Your task to perform on an android device: turn notification dots on Image 0: 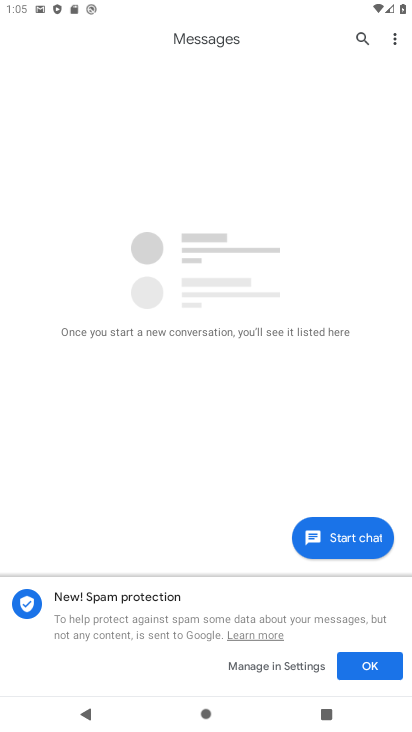
Step 0: press back button
Your task to perform on an android device: turn notification dots on Image 1: 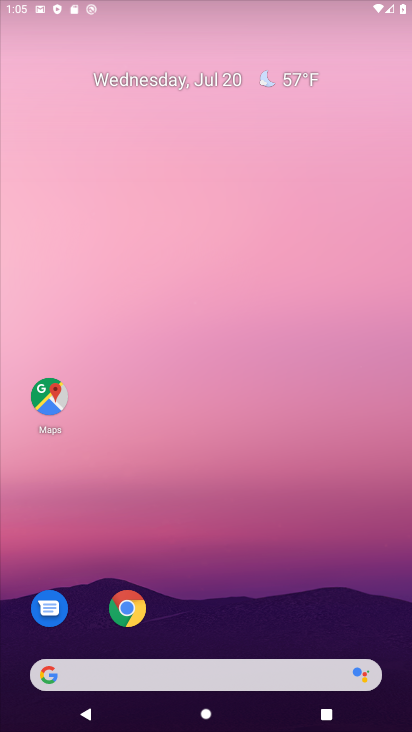
Step 1: drag from (158, 624) to (248, 69)
Your task to perform on an android device: turn notification dots on Image 2: 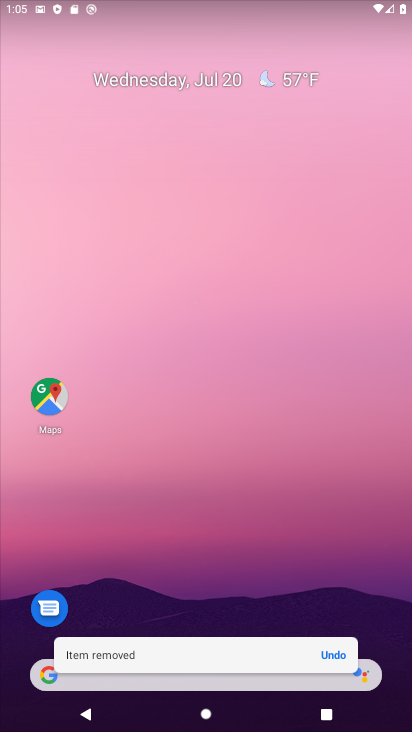
Step 2: drag from (198, 592) to (280, 86)
Your task to perform on an android device: turn notification dots on Image 3: 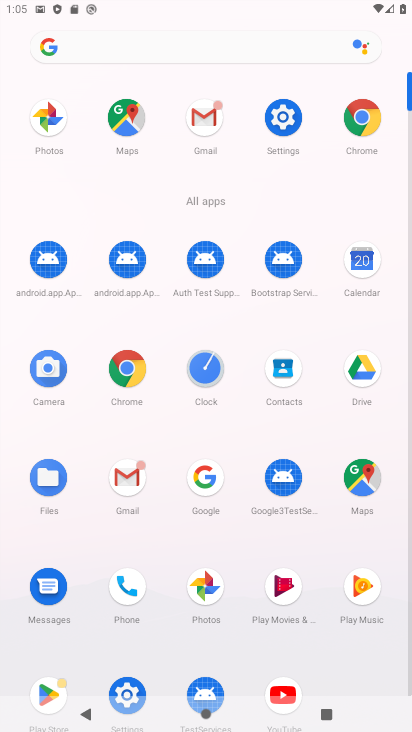
Step 3: click (276, 120)
Your task to perform on an android device: turn notification dots on Image 4: 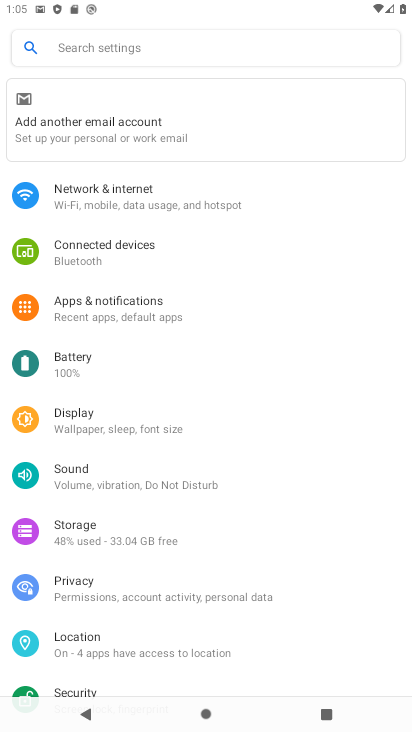
Step 4: click (114, 311)
Your task to perform on an android device: turn notification dots on Image 5: 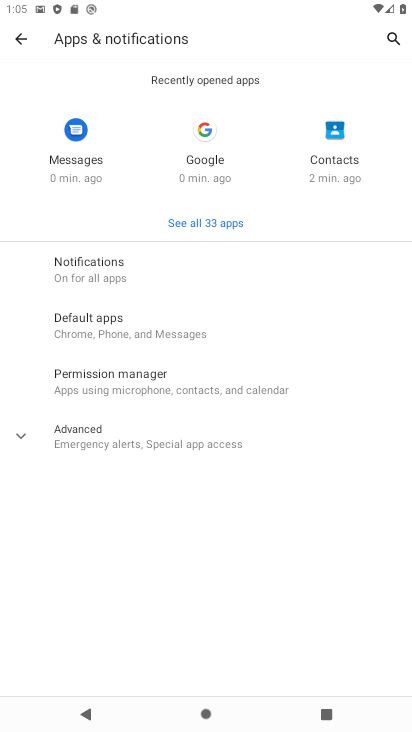
Step 5: click (120, 264)
Your task to perform on an android device: turn notification dots on Image 6: 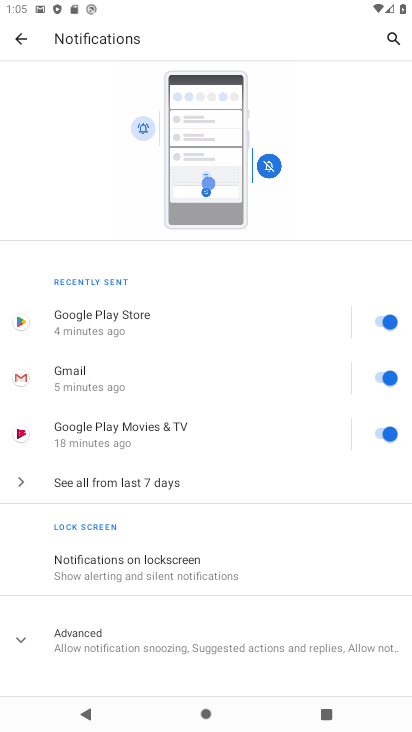
Step 6: drag from (142, 626) to (253, 307)
Your task to perform on an android device: turn notification dots on Image 7: 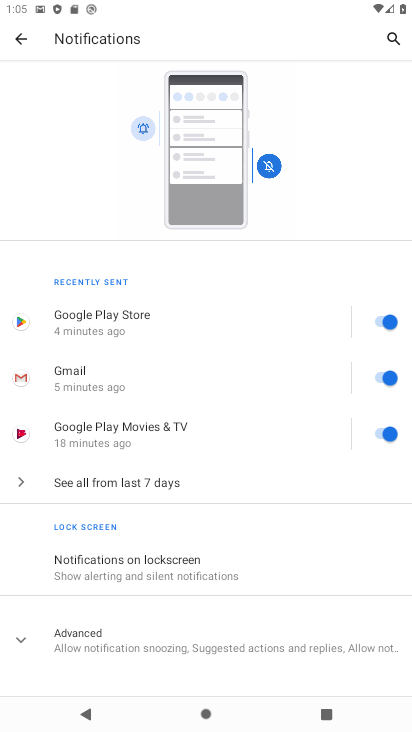
Step 7: click (119, 629)
Your task to perform on an android device: turn notification dots on Image 8: 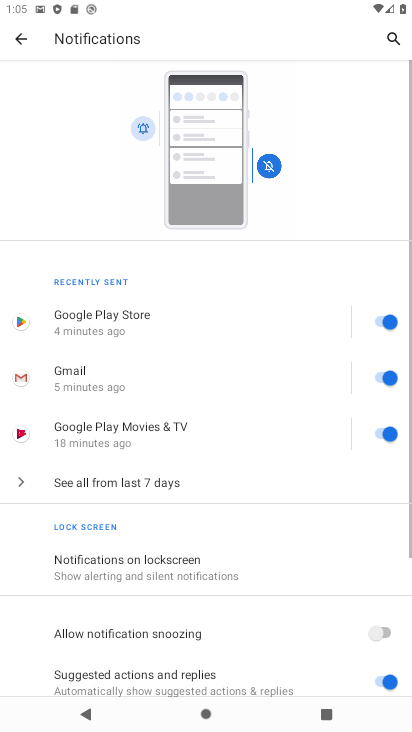
Step 8: task complete